Your task to perform on an android device: What is the news today? Image 0: 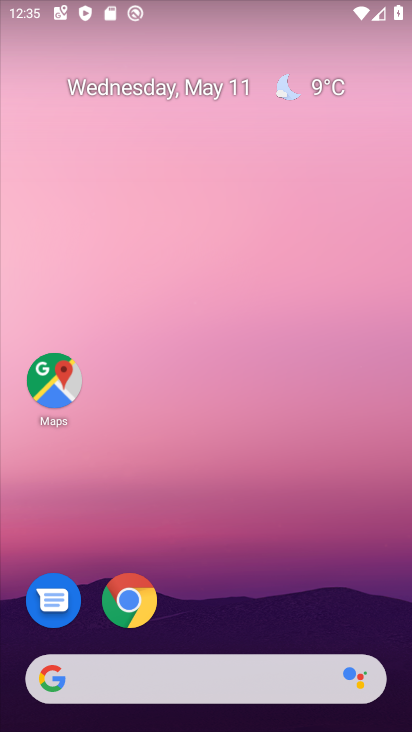
Step 0: click (128, 688)
Your task to perform on an android device: What is the news today? Image 1: 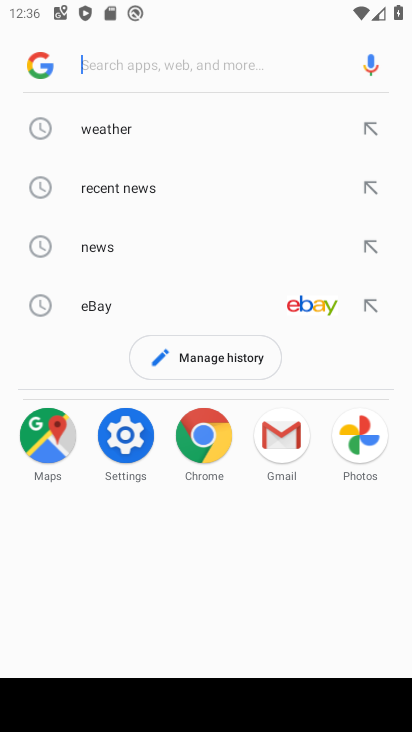
Step 1: type "news today"
Your task to perform on an android device: What is the news today? Image 2: 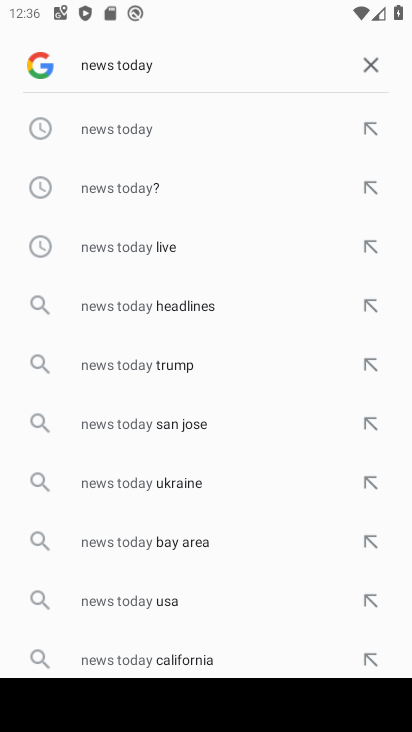
Step 2: click (125, 127)
Your task to perform on an android device: What is the news today? Image 3: 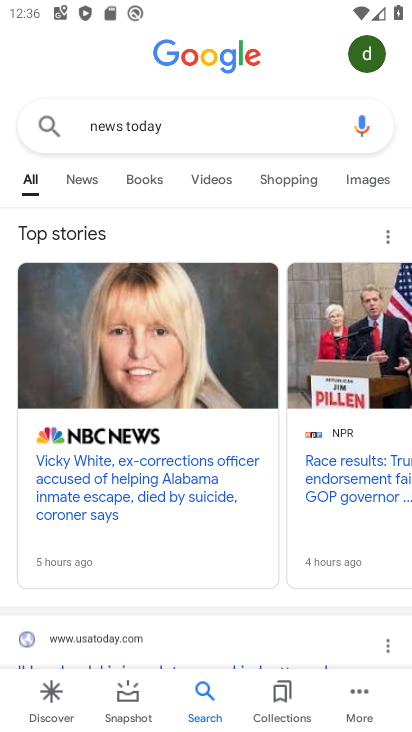
Step 3: task complete